Your task to perform on an android device: read, delete, or share a saved page in the chrome app Image 0: 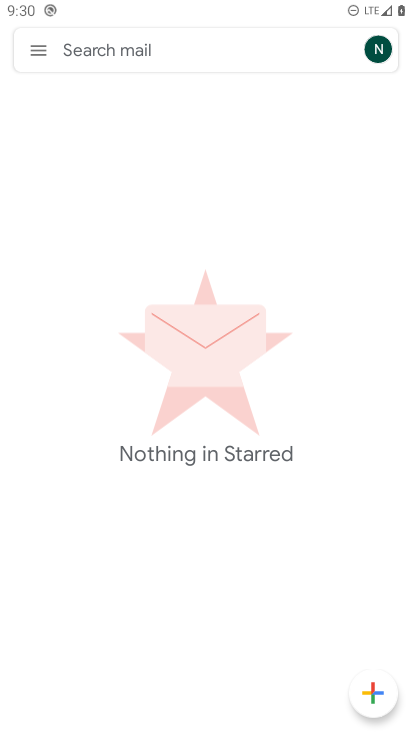
Step 0: press home button
Your task to perform on an android device: read, delete, or share a saved page in the chrome app Image 1: 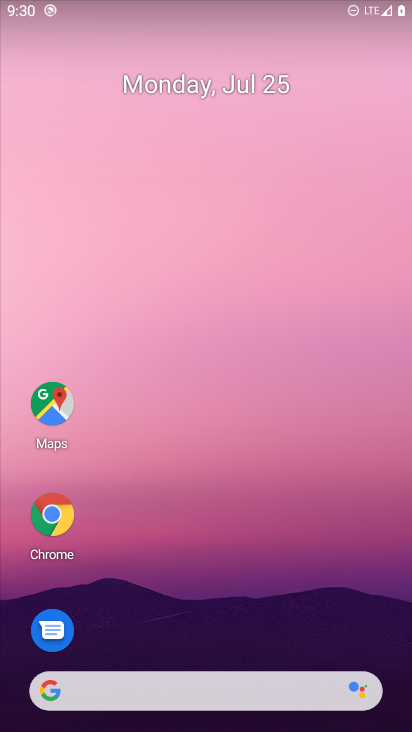
Step 1: click (54, 527)
Your task to perform on an android device: read, delete, or share a saved page in the chrome app Image 2: 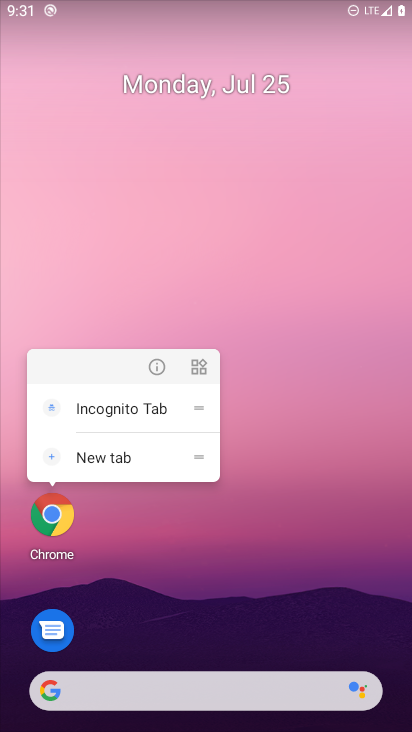
Step 2: click (48, 527)
Your task to perform on an android device: read, delete, or share a saved page in the chrome app Image 3: 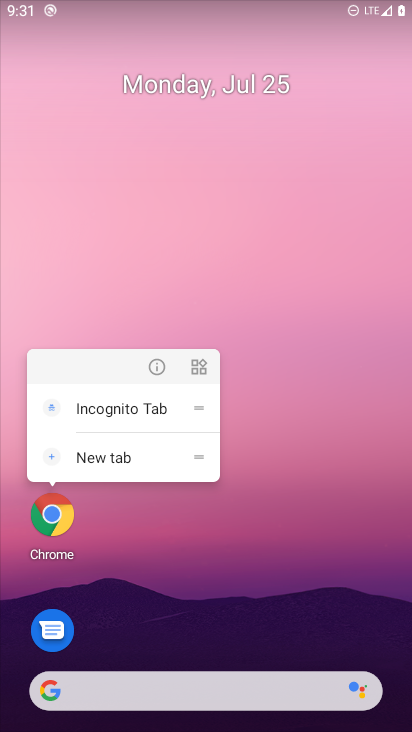
Step 3: click (48, 527)
Your task to perform on an android device: read, delete, or share a saved page in the chrome app Image 4: 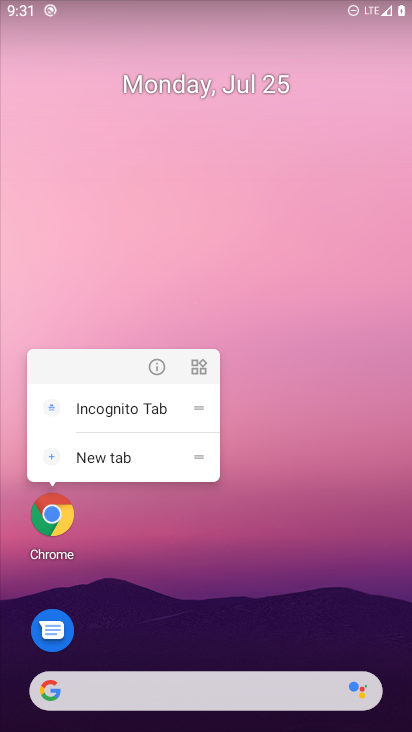
Step 4: task complete